Your task to perform on an android device: make emails show in primary in the gmail app Image 0: 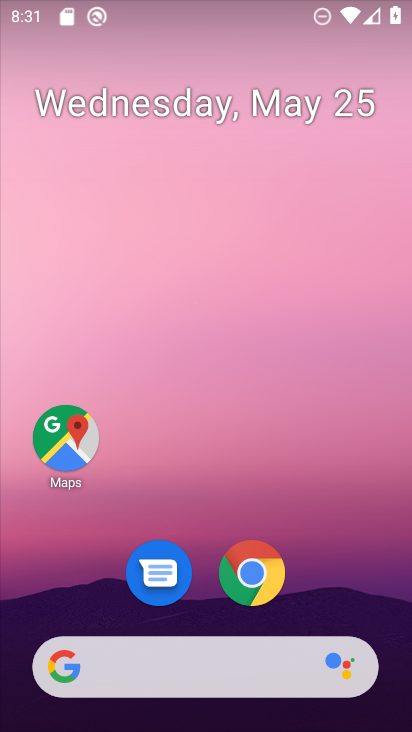
Step 0: drag from (392, 697) to (369, 209)
Your task to perform on an android device: make emails show in primary in the gmail app Image 1: 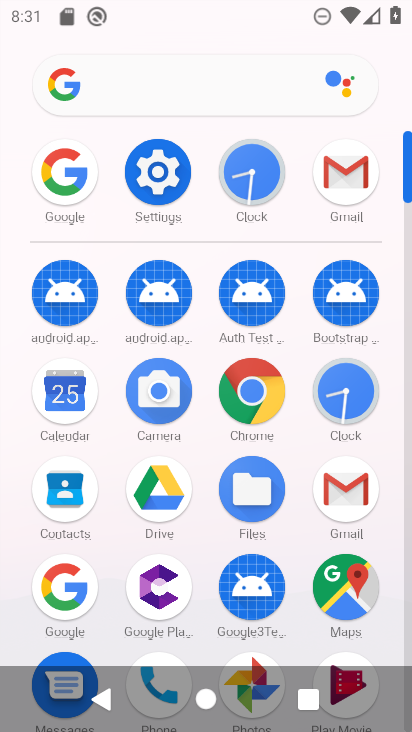
Step 1: click (341, 147)
Your task to perform on an android device: make emails show in primary in the gmail app Image 2: 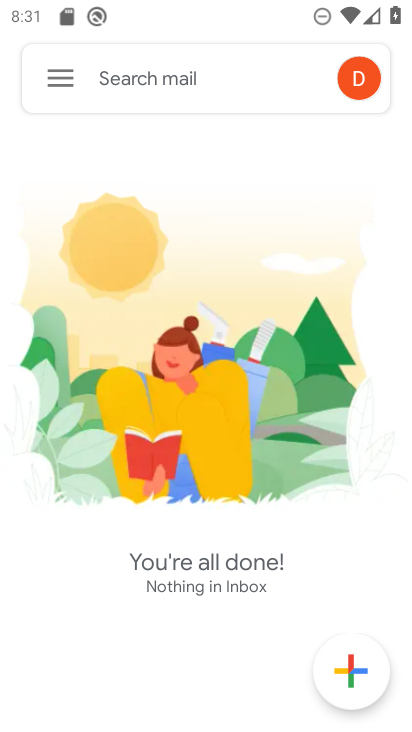
Step 2: click (71, 83)
Your task to perform on an android device: make emails show in primary in the gmail app Image 3: 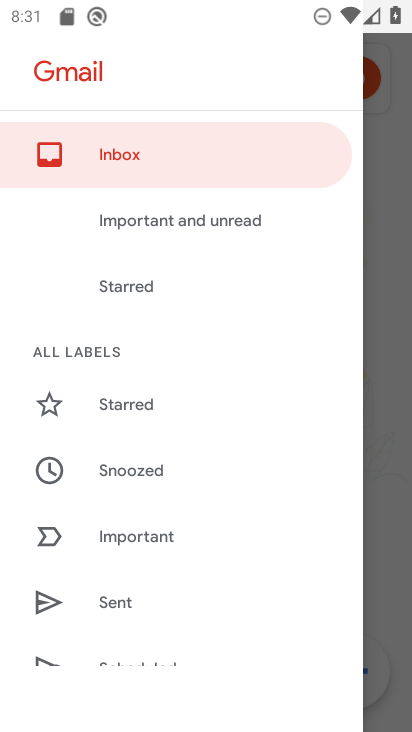
Step 3: drag from (229, 649) to (262, 60)
Your task to perform on an android device: make emails show in primary in the gmail app Image 4: 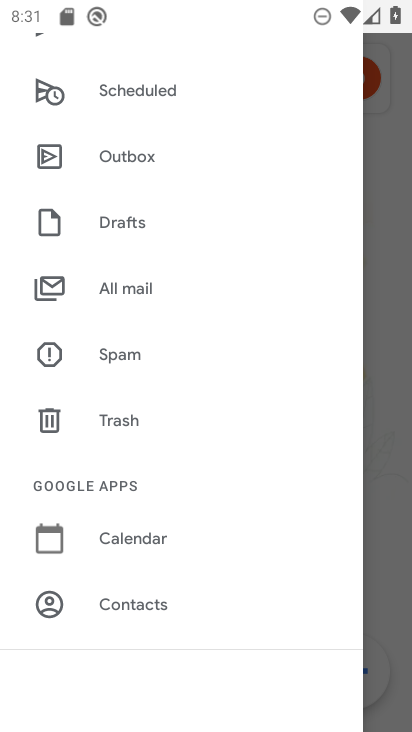
Step 4: drag from (232, 620) to (248, 160)
Your task to perform on an android device: make emails show in primary in the gmail app Image 5: 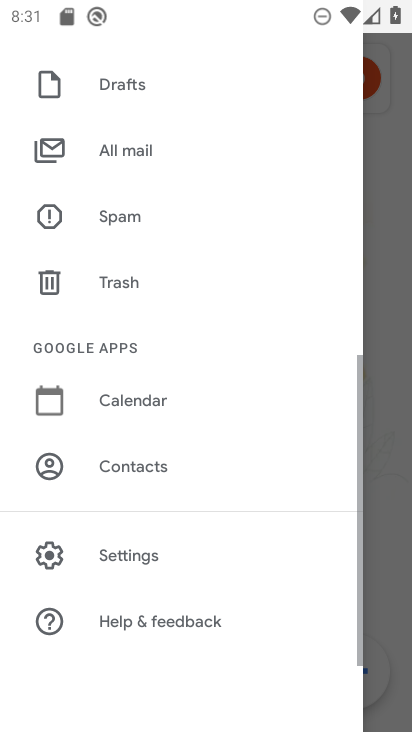
Step 5: click (131, 542)
Your task to perform on an android device: make emails show in primary in the gmail app Image 6: 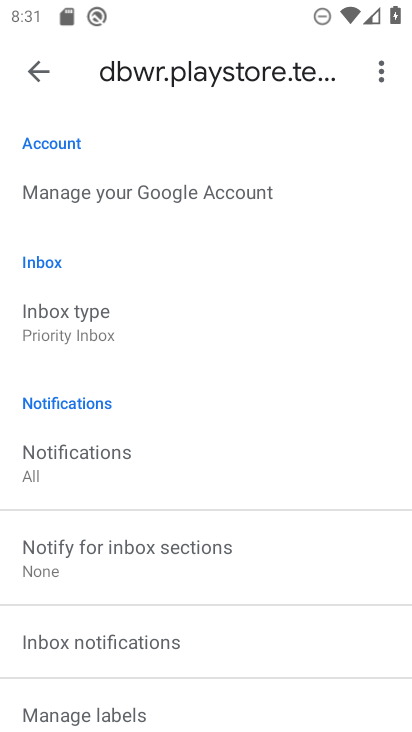
Step 6: click (57, 327)
Your task to perform on an android device: make emails show in primary in the gmail app Image 7: 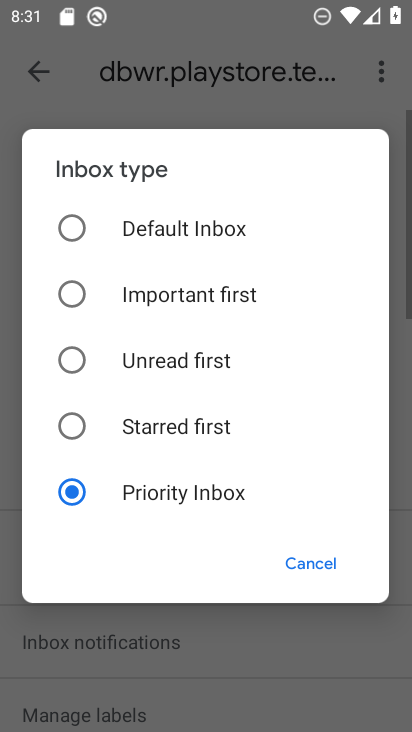
Step 7: click (72, 222)
Your task to perform on an android device: make emails show in primary in the gmail app Image 8: 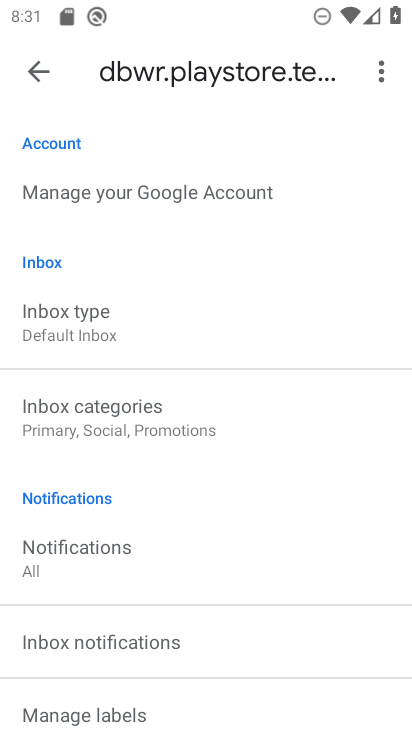
Step 8: click (73, 401)
Your task to perform on an android device: make emails show in primary in the gmail app Image 9: 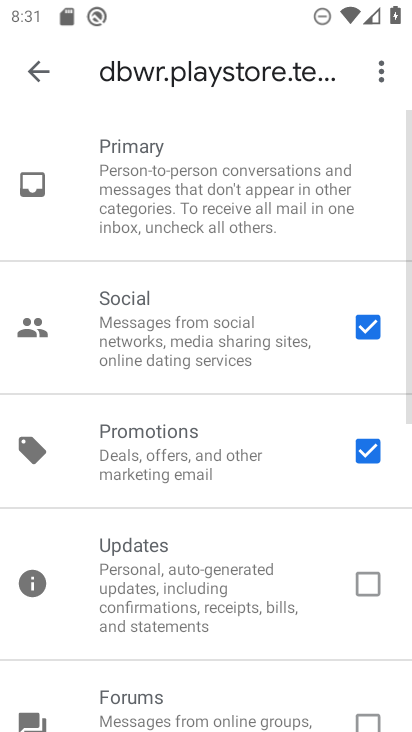
Step 9: click (360, 448)
Your task to perform on an android device: make emails show in primary in the gmail app Image 10: 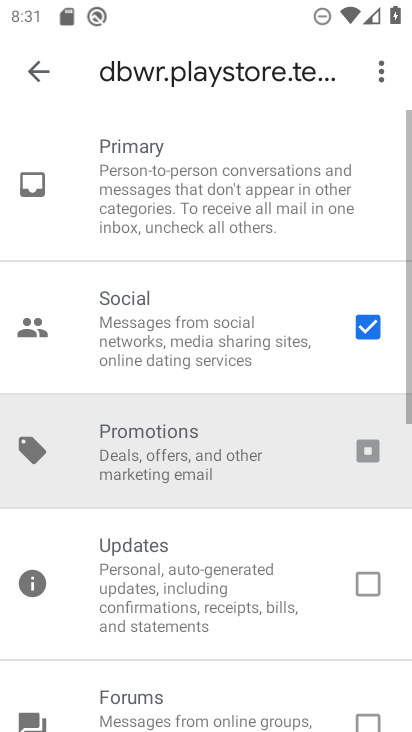
Step 10: click (365, 320)
Your task to perform on an android device: make emails show in primary in the gmail app Image 11: 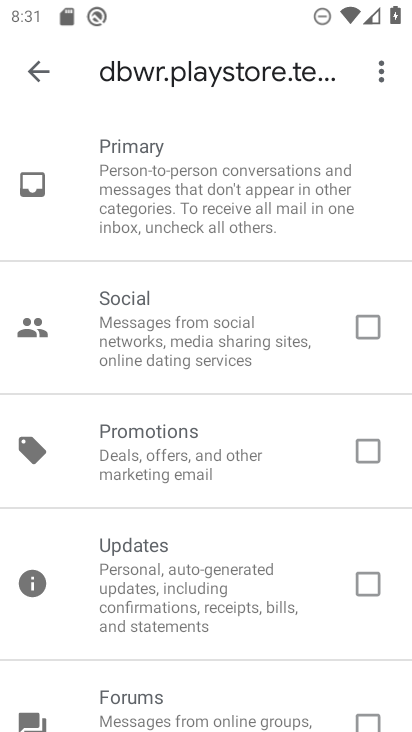
Step 11: click (39, 63)
Your task to perform on an android device: make emails show in primary in the gmail app Image 12: 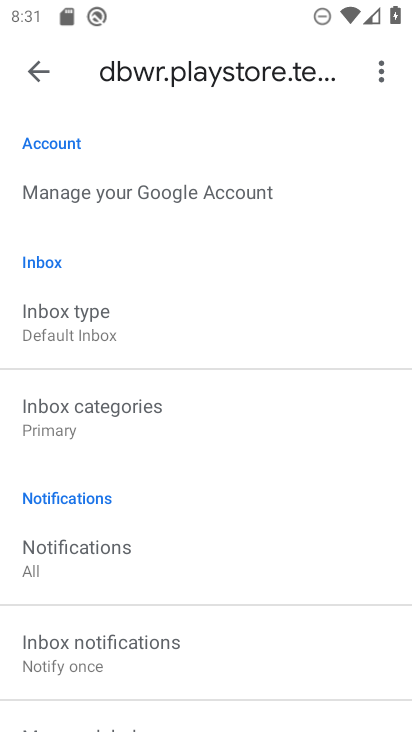
Step 12: task complete